Your task to perform on an android device: move an email to a new category in the gmail app Image 0: 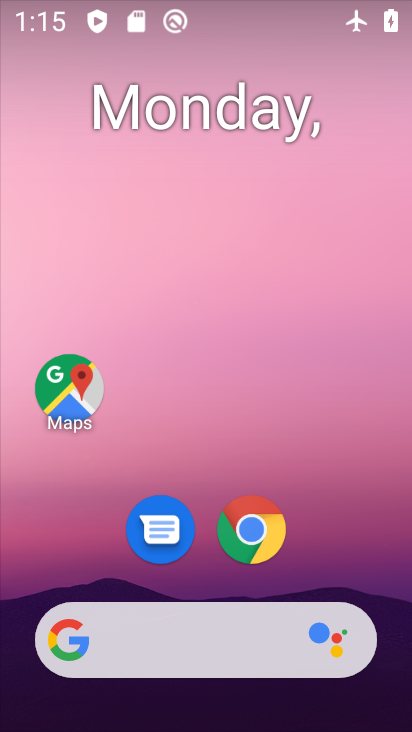
Step 0: drag from (357, 544) to (403, 65)
Your task to perform on an android device: move an email to a new category in the gmail app Image 1: 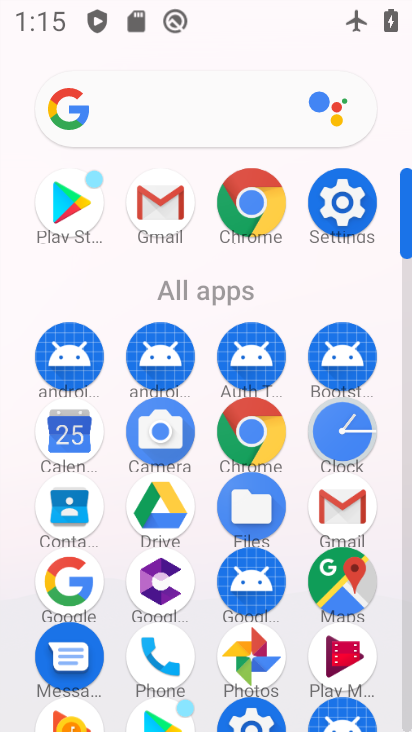
Step 1: click (188, 205)
Your task to perform on an android device: move an email to a new category in the gmail app Image 2: 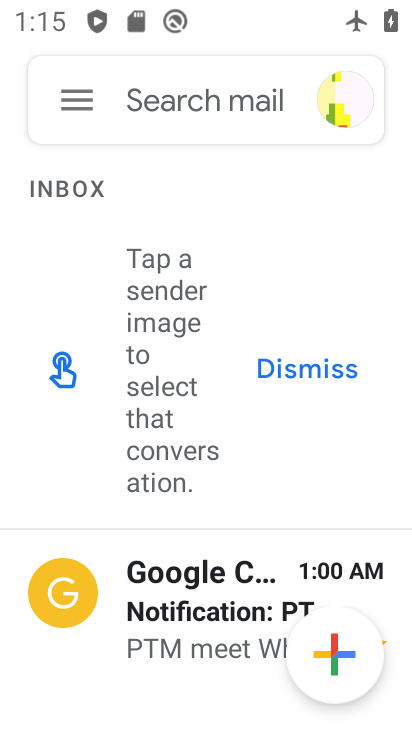
Step 2: drag from (211, 605) to (256, 135)
Your task to perform on an android device: move an email to a new category in the gmail app Image 3: 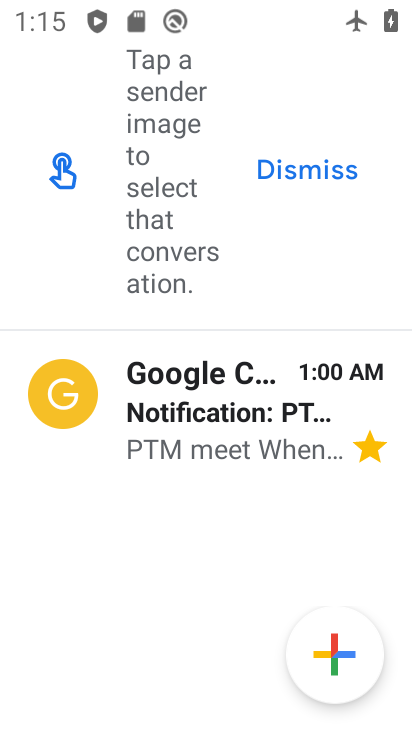
Step 3: drag from (195, 229) to (208, 595)
Your task to perform on an android device: move an email to a new category in the gmail app Image 4: 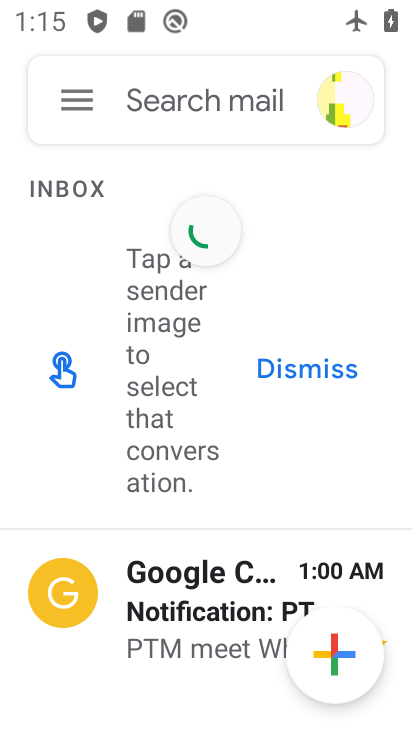
Step 4: click (67, 103)
Your task to perform on an android device: move an email to a new category in the gmail app Image 5: 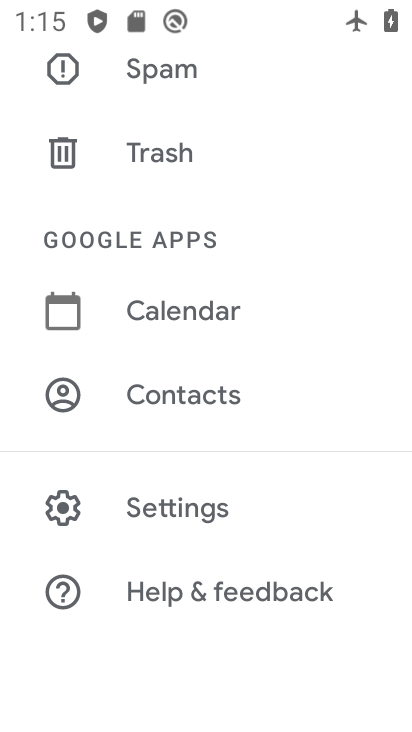
Step 5: click (163, 510)
Your task to perform on an android device: move an email to a new category in the gmail app Image 6: 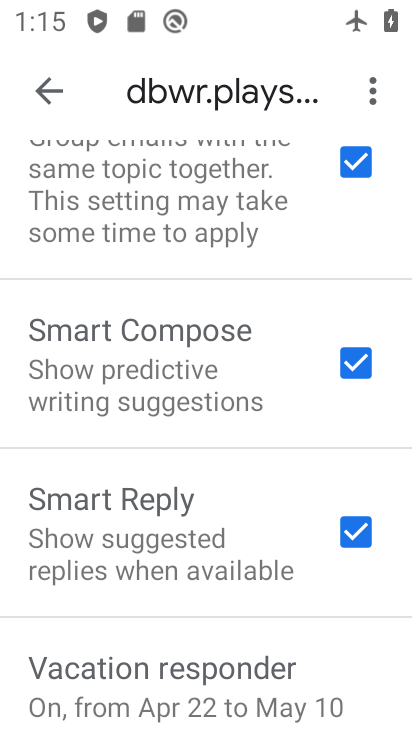
Step 6: click (55, 94)
Your task to perform on an android device: move an email to a new category in the gmail app Image 7: 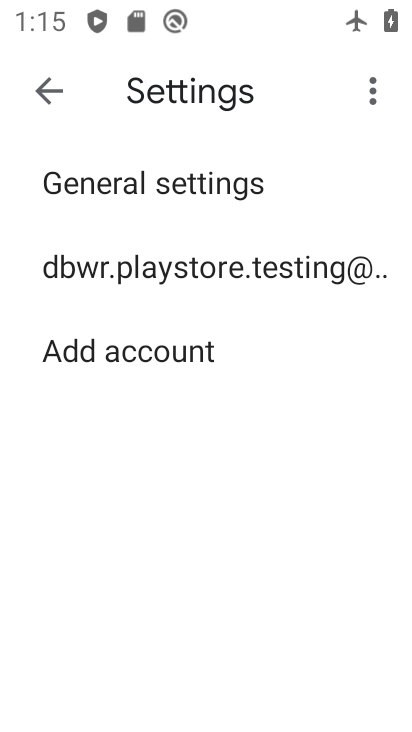
Step 7: click (55, 94)
Your task to perform on an android device: move an email to a new category in the gmail app Image 8: 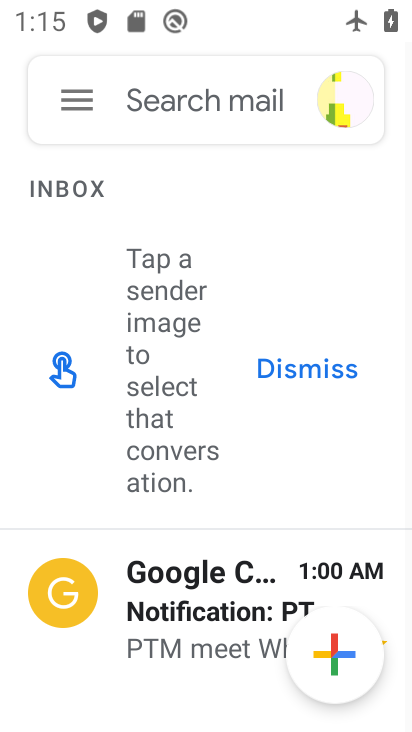
Step 8: drag from (209, 506) to (230, 141)
Your task to perform on an android device: move an email to a new category in the gmail app Image 9: 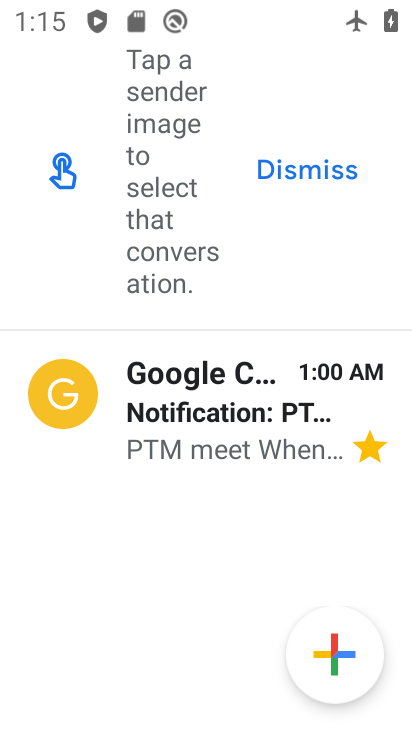
Step 9: click (200, 398)
Your task to perform on an android device: move an email to a new category in the gmail app Image 10: 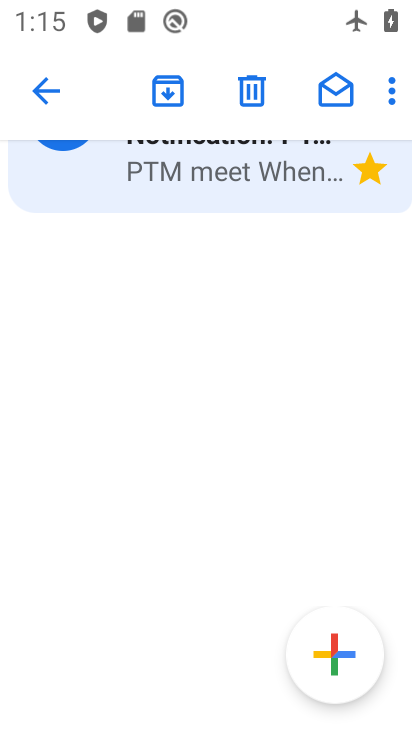
Step 10: drag from (246, 297) to (218, 614)
Your task to perform on an android device: move an email to a new category in the gmail app Image 11: 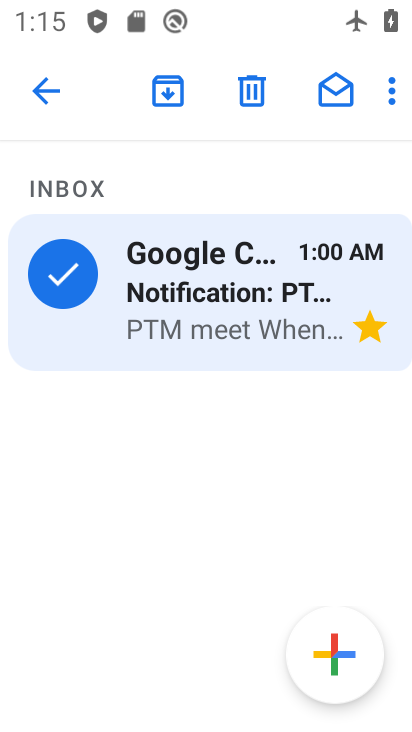
Step 11: click (68, 276)
Your task to perform on an android device: move an email to a new category in the gmail app Image 12: 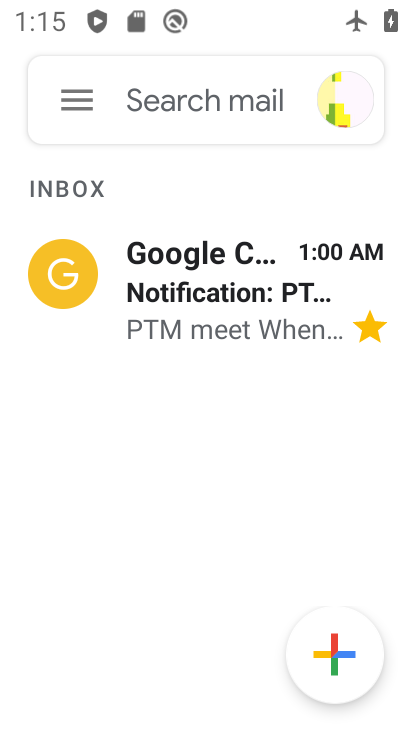
Step 12: click (255, 291)
Your task to perform on an android device: move an email to a new category in the gmail app Image 13: 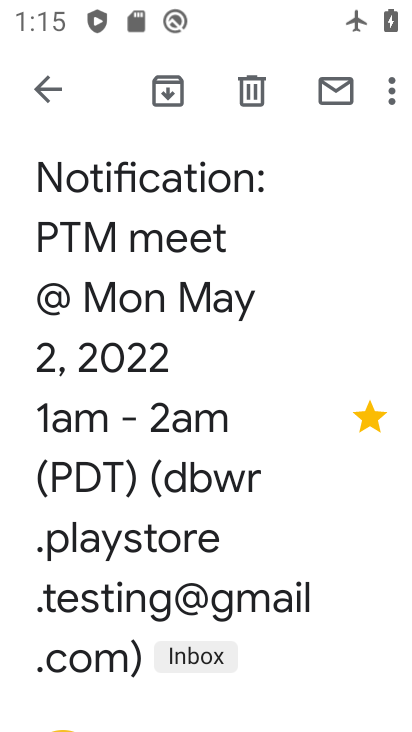
Step 13: click (389, 105)
Your task to perform on an android device: move an email to a new category in the gmail app Image 14: 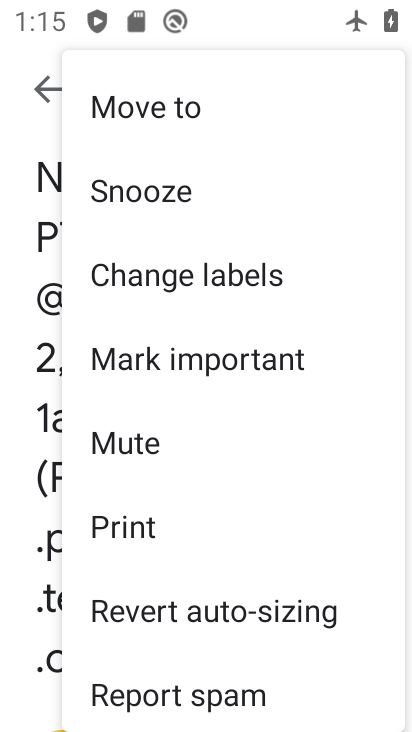
Step 14: click (118, 202)
Your task to perform on an android device: move an email to a new category in the gmail app Image 15: 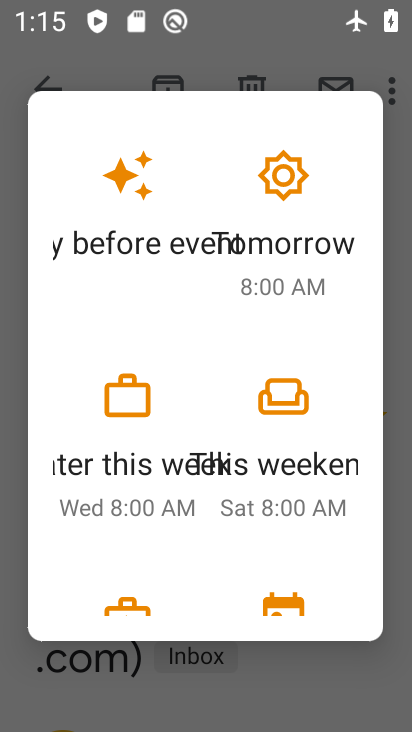
Step 15: click (121, 202)
Your task to perform on an android device: move an email to a new category in the gmail app Image 16: 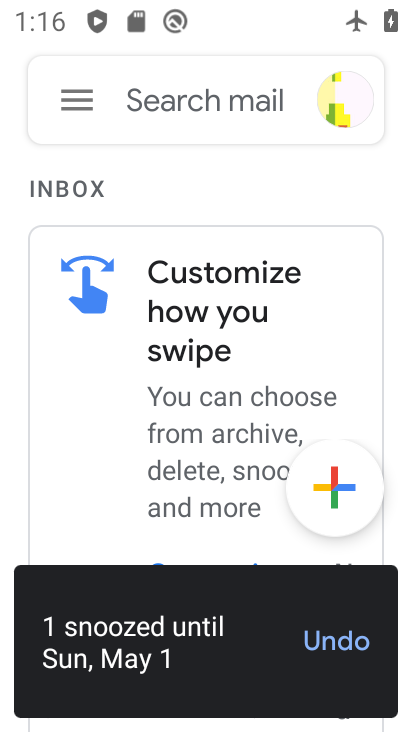
Step 16: task complete